Your task to perform on an android device: make emails show in primary in the gmail app Image 0: 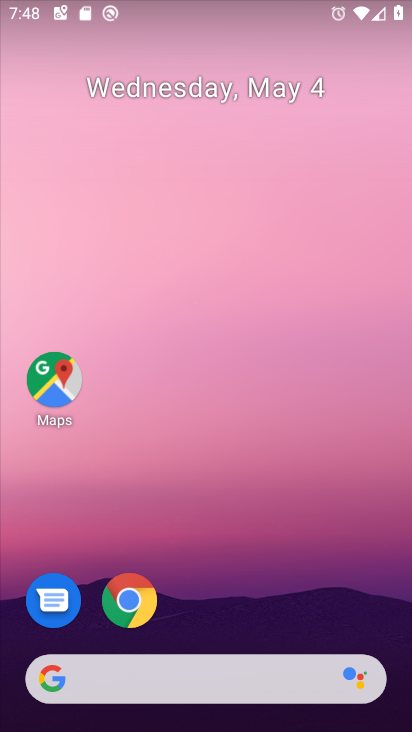
Step 0: drag from (196, 650) to (388, 61)
Your task to perform on an android device: make emails show in primary in the gmail app Image 1: 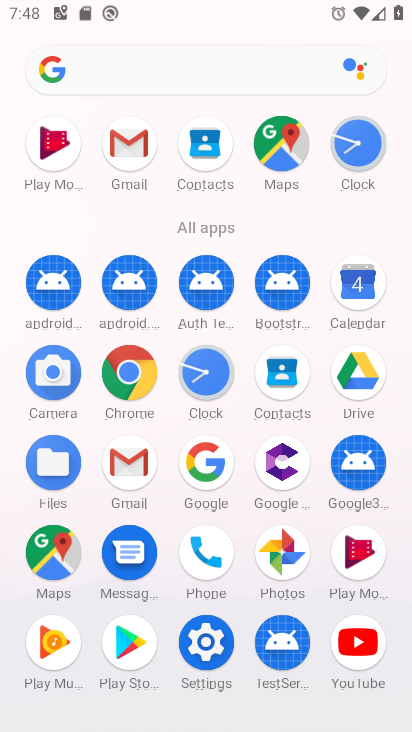
Step 1: click (125, 151)
Your task to perform on an android device: make emails show in primary in the gmail app Image 2: 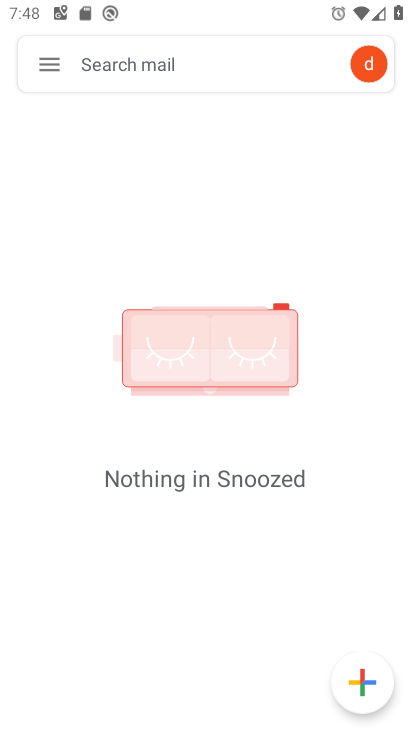
Step 2: click (52, 65)
Your task to perform on an android device: make emails show in primary in the gmail app Image 3: 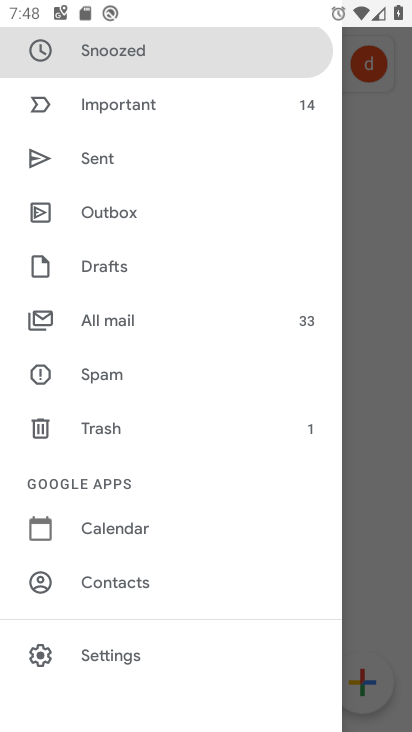
Step 3: drag from (129, 156) to (148, 117)
Your task to perform on an android device: make emails show in primary in the gmail app Image 4: 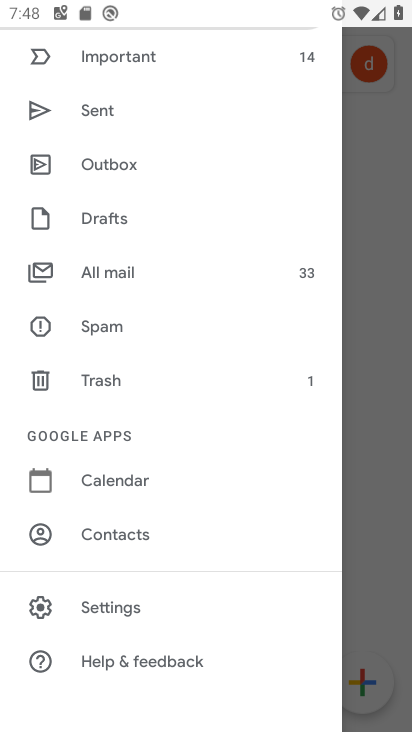
Step 4: click (109, 611)
Your task to perform on an android device: make emails show in primary in the gmail app Image 5: 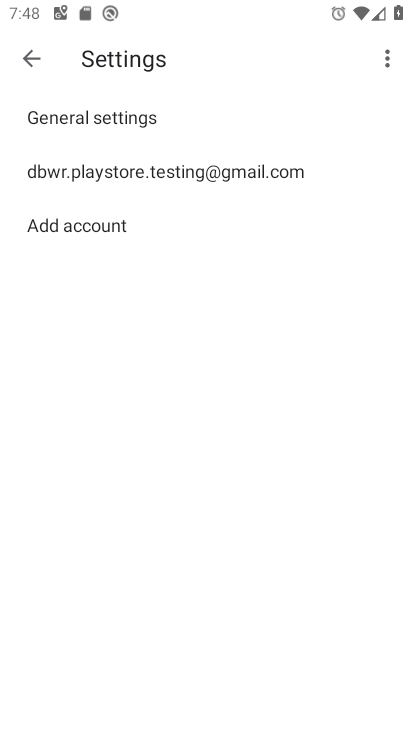
Step 5: click (107, 169)
Your task to perform on an android device: make emails show in primary in the gmail app Image 6: 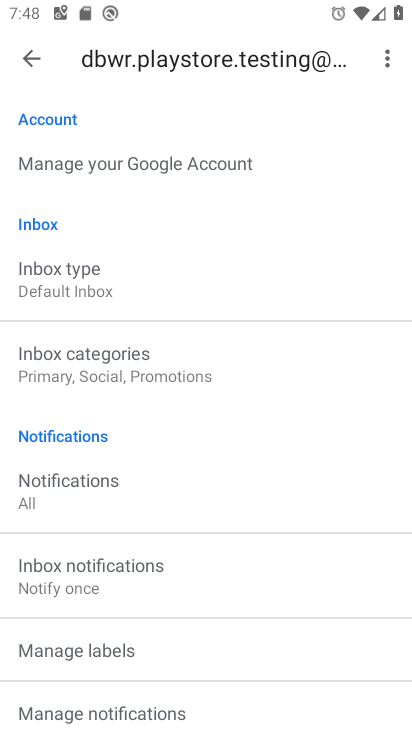
Step 6: click (139, 290)
Your task to perform on an android device: make emails show in primary in the gmail app Image 7: 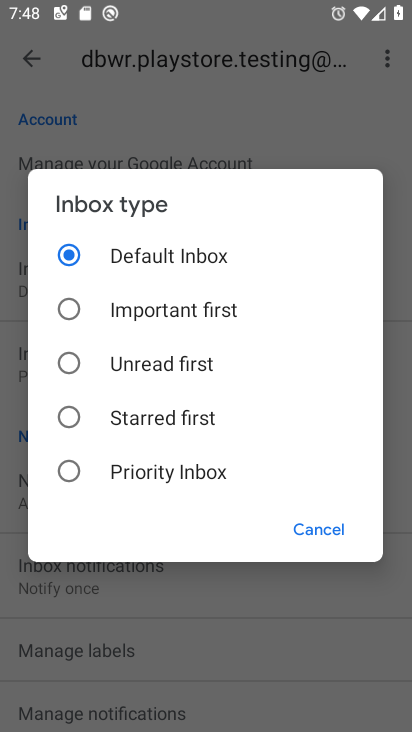
Step 7: click (141, 476)
Your task to perform on an android device: make emails show in primary in the gmail app Image 8: 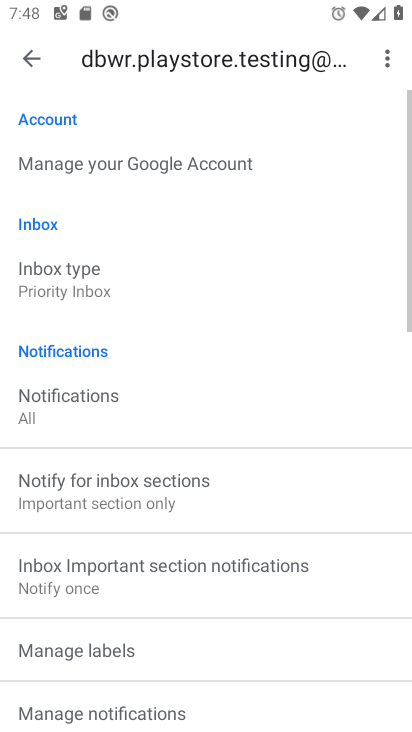
Step 8: click (89, 287)
Your task to perform on an android device: make emails show in primary in the gmail app Image 9: 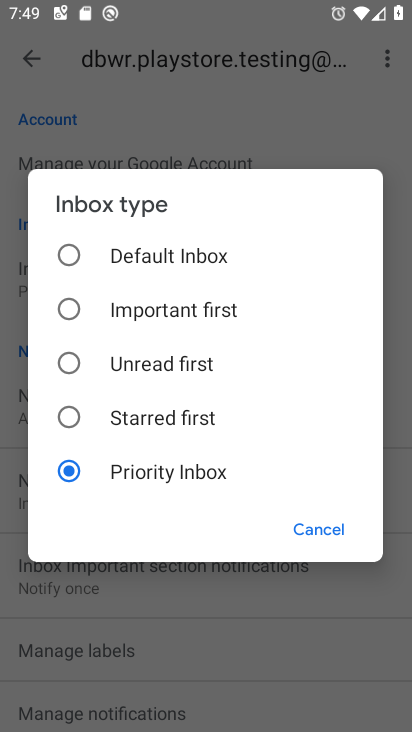
Step 9: drag from (177, 314) to (179, 536)
Your task to perform on an android device: make emails show in primary in the gmail app Image 10: 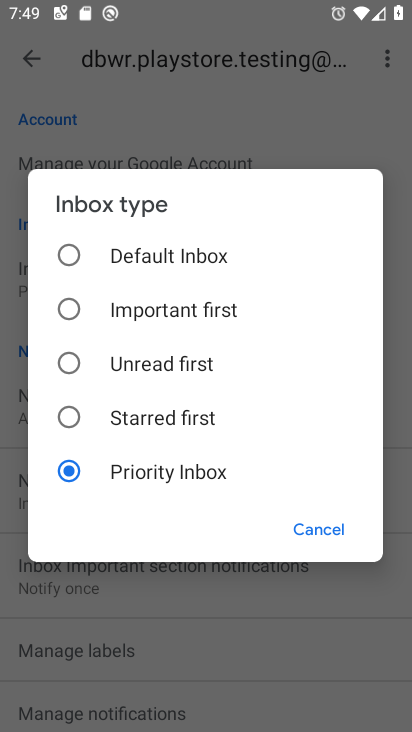
Step 10: click (165, 668)
Your task to perform on an android device: make emails show in primary in the gmail app Image 11: 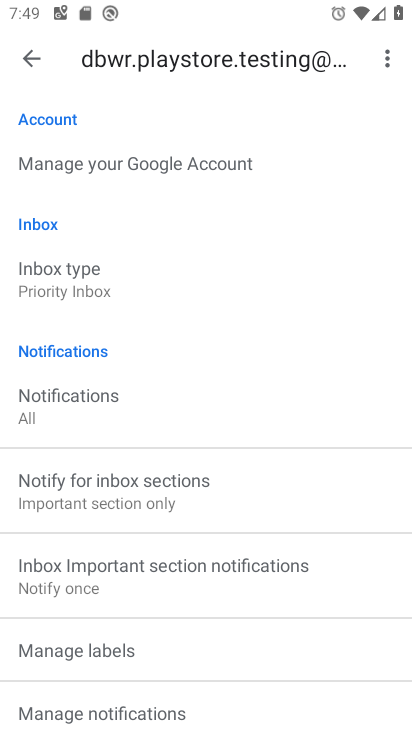
Step 11: drag from (64, 410) to (110, 264)
Your task to perform on an android device: make emails show in primary in the gmail app Image 12: 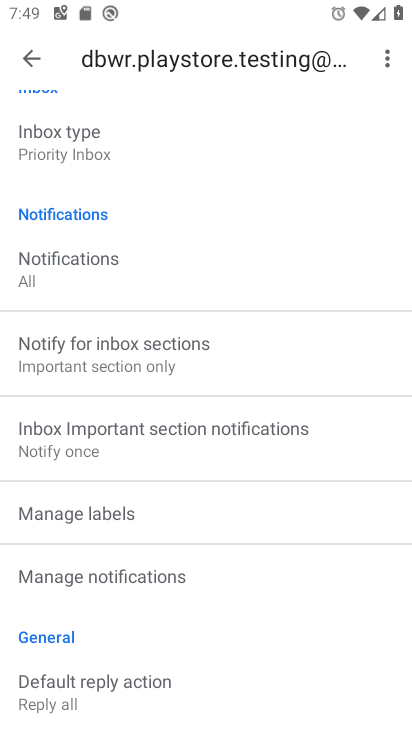
Step 12: drag from (77, 441) to (168, 195)
Your task to perform on an android device: make emails show in primary in the gmail app Image 13: 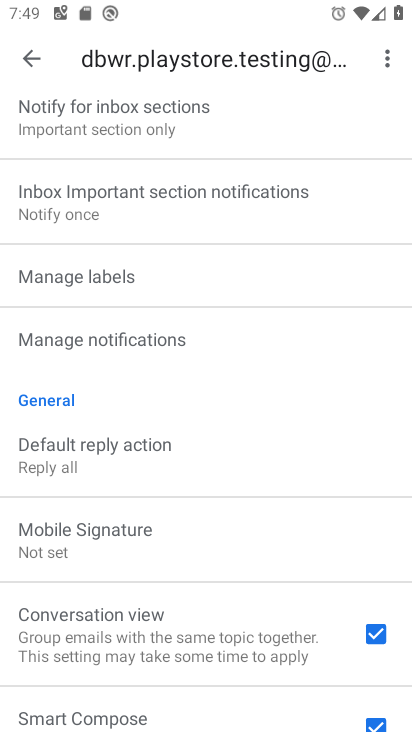
Step 13: drag from (149, 431) to (200, 263)
Your task to perform on an android device: make emails show in primary in the gmail app Image 14: 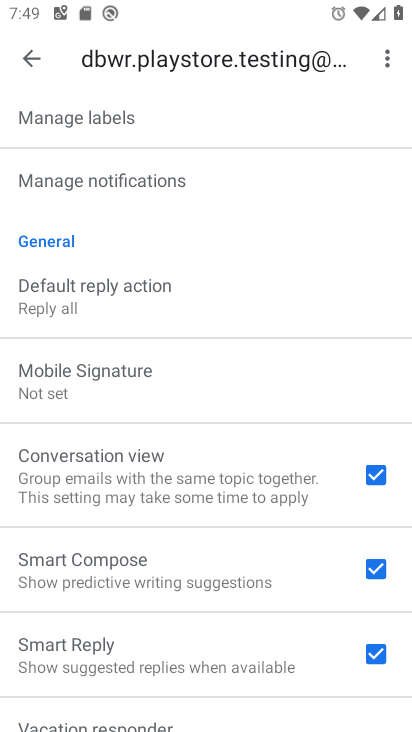
Step 14: drag from (200, 263) to (157, 714)
Your task to perform on an android device: make emails show in primary in the gmail app Image 15: 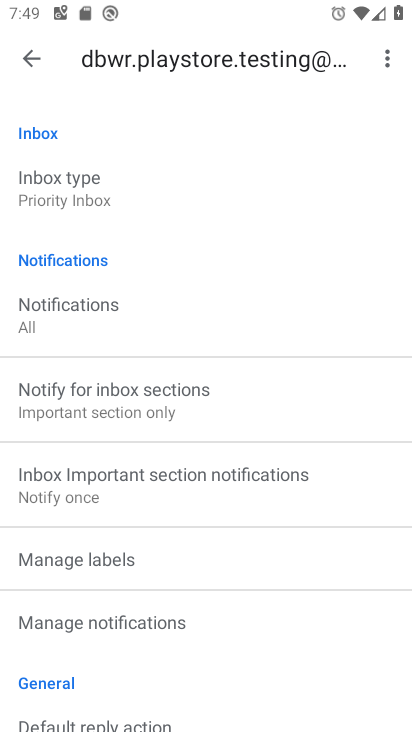
Step 15: click (121, 194)
Your task to perform on an android device: make emails show in primary in the gmail app Image 16: 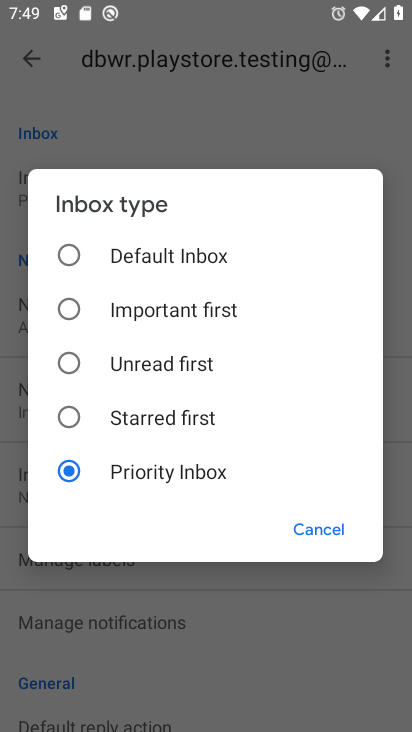
Step 16: click (236, 633)
Your task to perform on an android device: make emails show in primary in the gmail app Image 17: 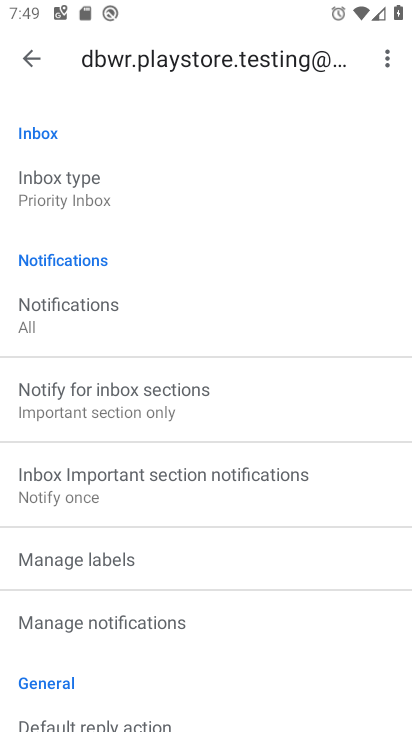
Step 17: click (22, 56)
Your task to perform on an android device: make emails show in primary in the gmail app Image 18: 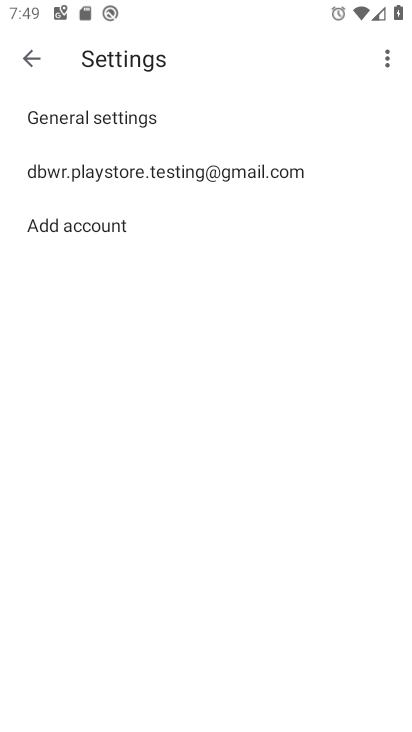
Step 18: click (22, 56)
Your task to perform on an android device: make emails show in primary in the gmail app Image 19: 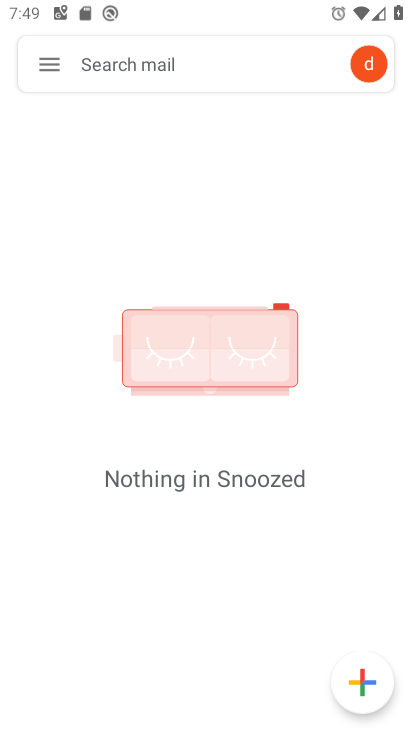
Step 19: click (37, 64)
Your task to perform on an android device: make emails show in primary in the gmail app Image 20: 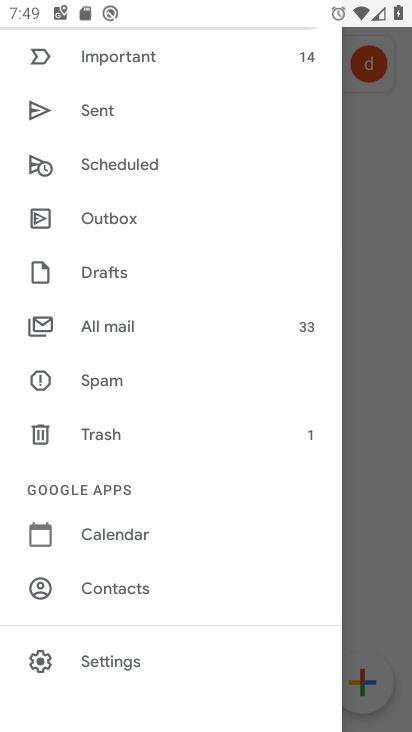
Step 20: task complete